Your task to perform on an android device: Turn on the flashlight Image 0: 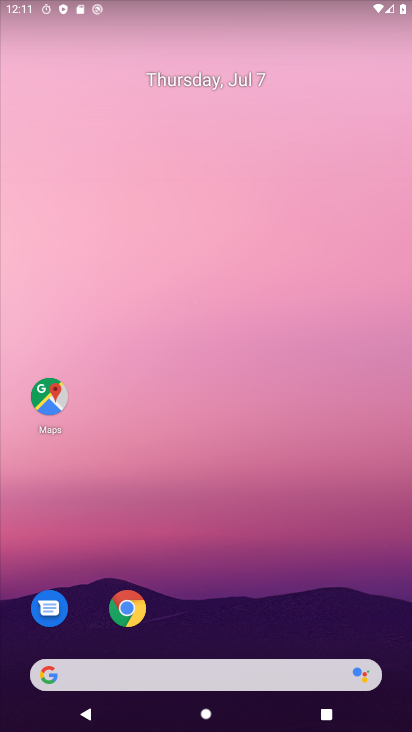
Step 0: drag from (224, 653) to (225, 0)
Your task to perform on an android device: Turn on the flashlight Image 1: 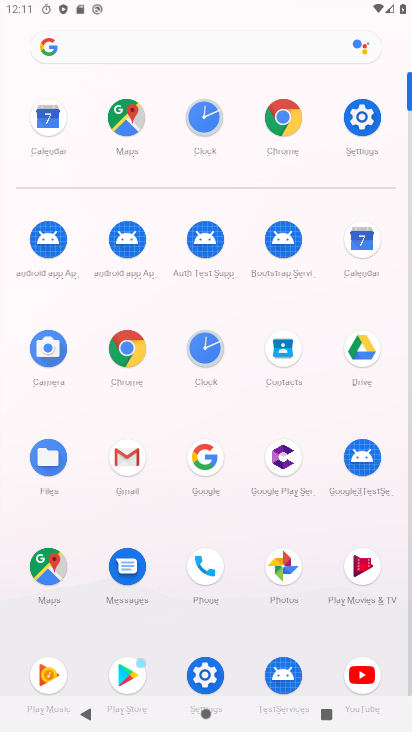
Step 1: task complete